Your task to perform on an android device: What's the weather today? Image 0: 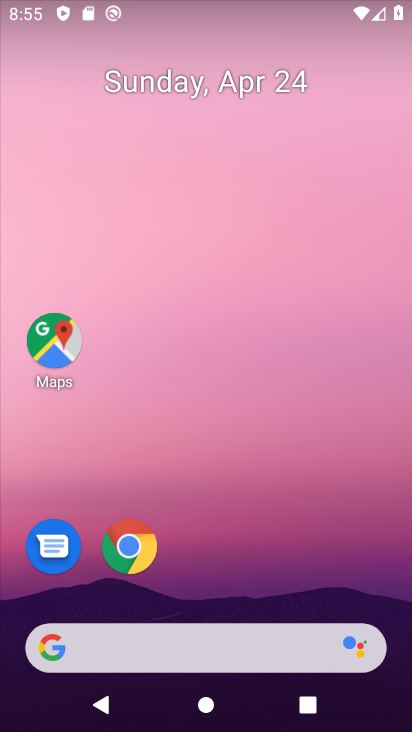
Step 0: drag from (225, 593) to (278, 185)
Your task to perform on an android device: What's the weather today? Image 1: 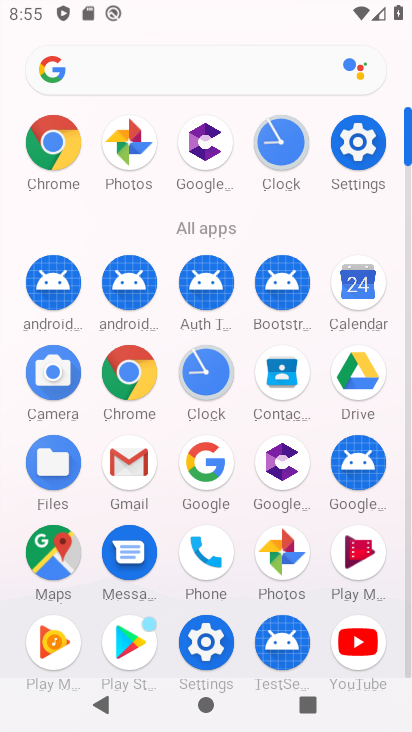
Step 1: click (119, 379)
Your task to perform on an android device: What's the weather today? Image 2: 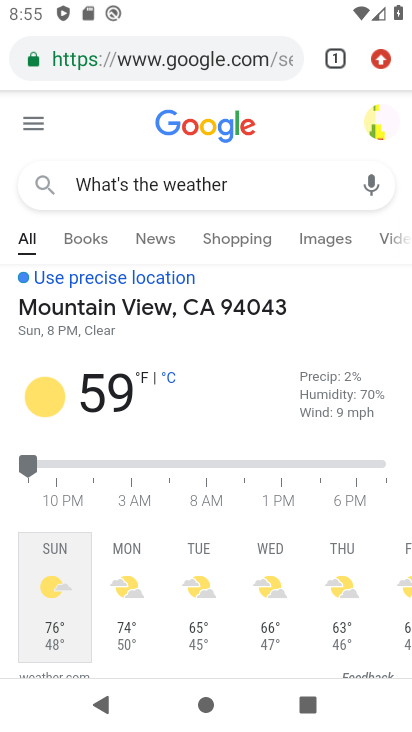
Step 2: click (287, 176)
Your task to perform on an android device: What's the weather today? Image 3: 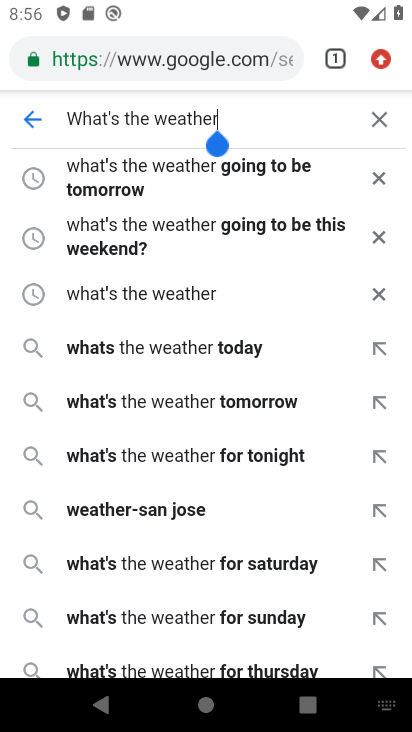
Step 3: click (191, 349)
Your task to perform on an android device: What's the weather today? Image 4: 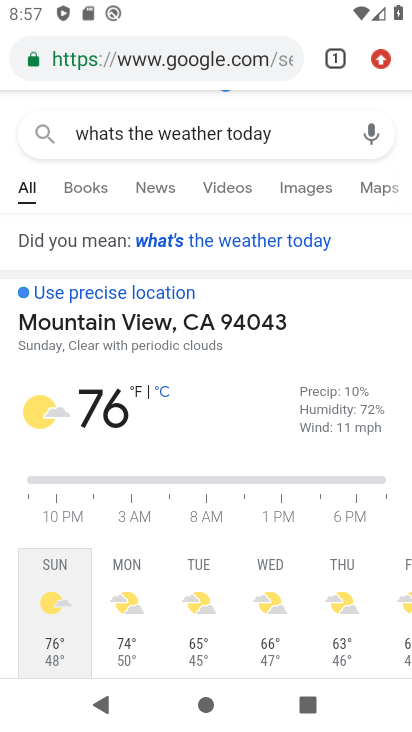
Step 4: task complete